Your task to perform on an android device: Open maps Image 0: 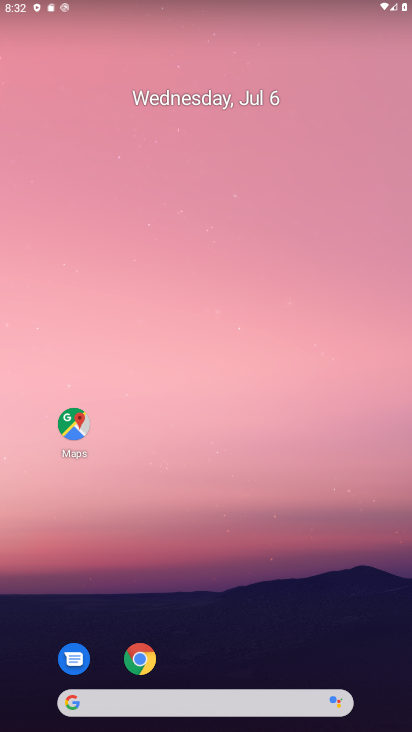
Step 0: drag from (351, 615) to (383, 112)
Your task to perform on an android device: Open maps Image 1: 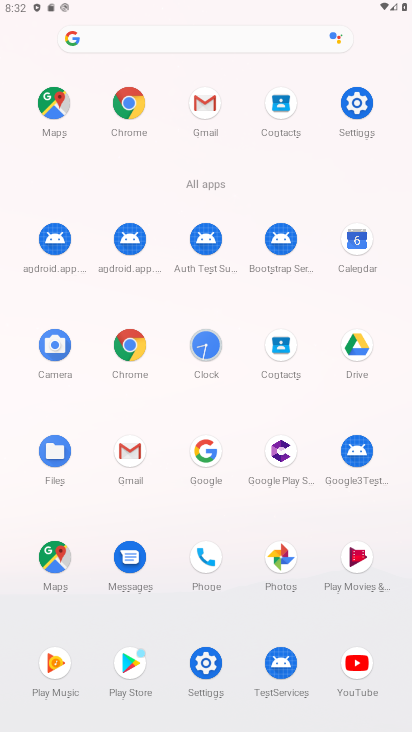
Step 1: click (60, 557)
Your task to perform on an android device: Open maps Image 2: 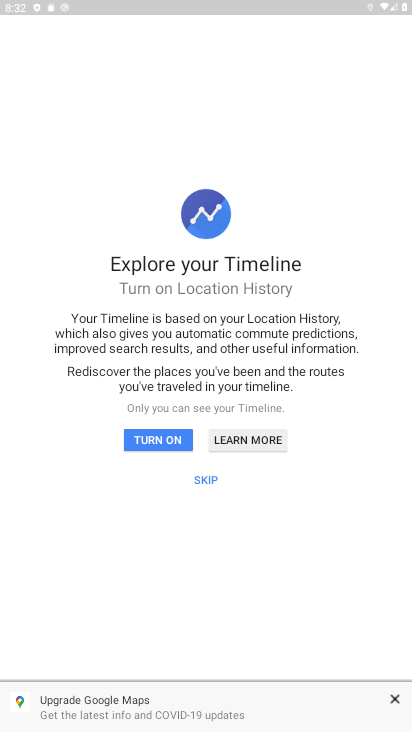
Step 2: task complete